Your task to perform on an android device: check out phone information Image 0: 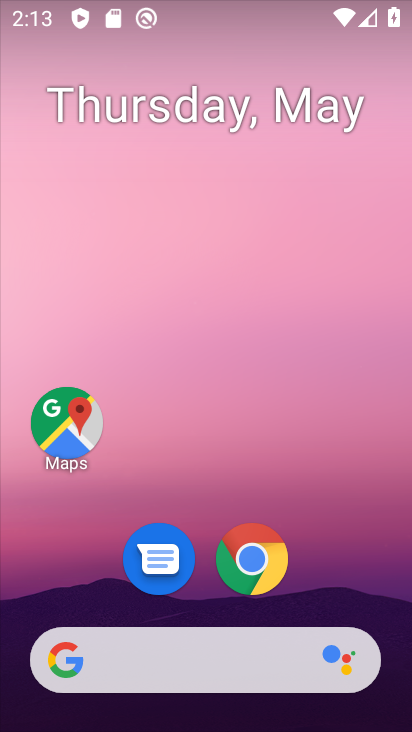
Step 0: drag from (200, 608) to (209, 188)
Your task to perform on an android device: check out phone information Image 1: 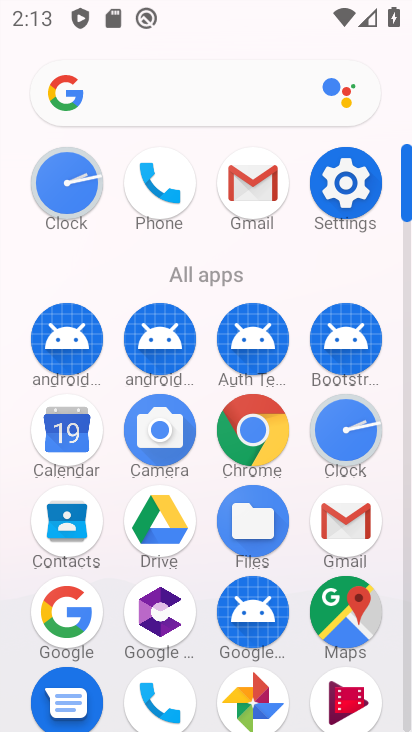
Step 1: click (340, 186)
Your task to perform on an android device: check out phone information Image 2: 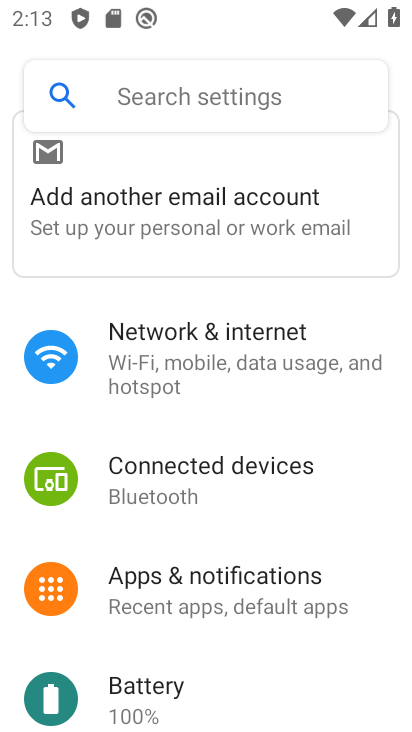
Step 2: drag from (199, 644) to (199, 417)
Your task to perform on an android device: check out phone information Image 3: 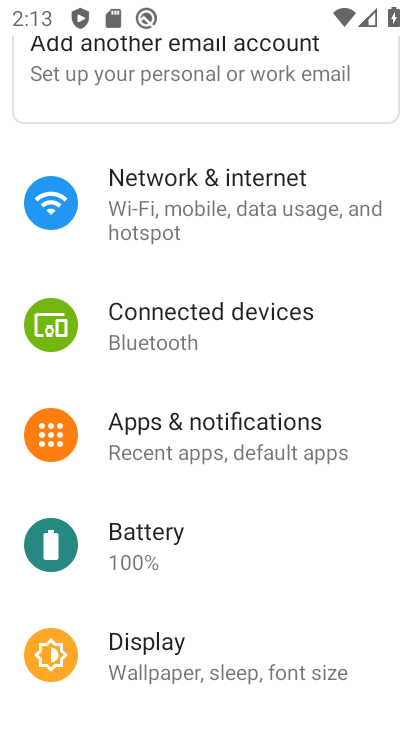
Step 3: drag from (215, 629) to (214, 362)
Your task to perform on an android device: check out phone information Image 4: 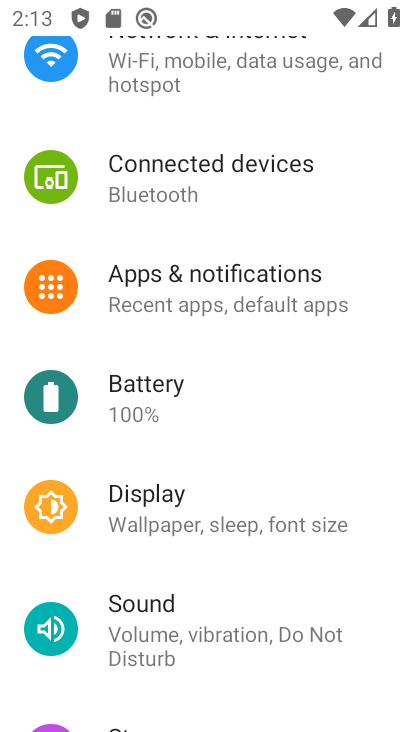
Step 4: drag from (214, 628) to (234, 311)
Your task to perform on an android device: check out phone information Image 5: 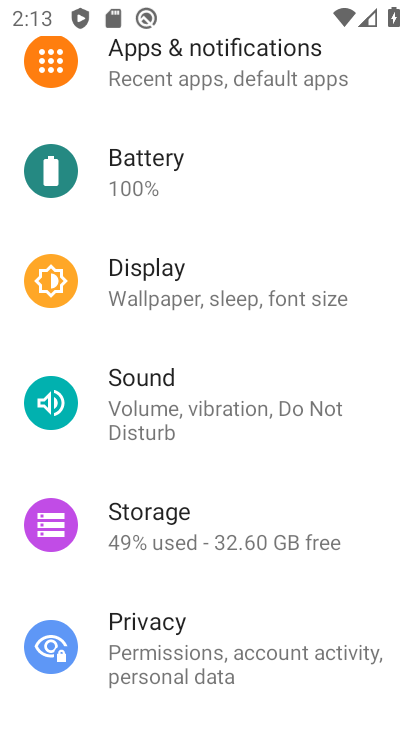
Step 5: drag from (234, 612) to (236, 355)
Your task to perform on an android device: check out phone information Image 6: 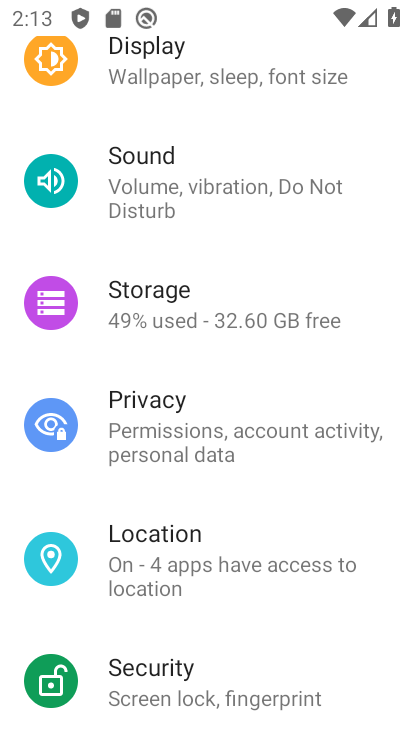
Step 6: drag from (214, 699) to (239, 341)
Your task to perform on an android device: check out phone information Image 7: 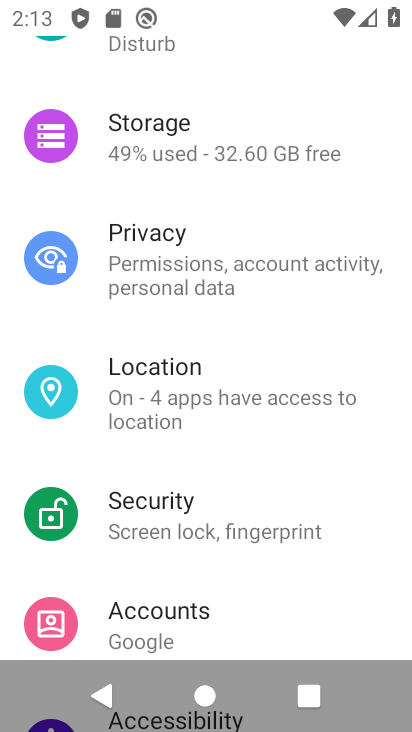
Step 7: drag from (240, 552) to (263, 286)
Your task to perform on an android device: check out phone information Image 8: 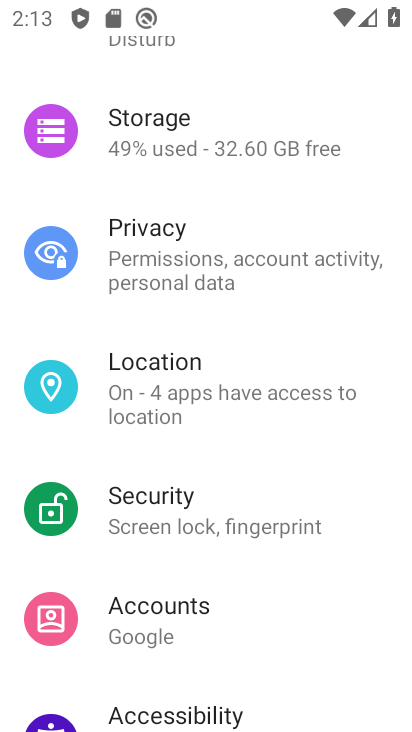
Step 8: drag from (263, 570) to (289, 267)
Your task to perform on an android device: check out phone information Image 9: 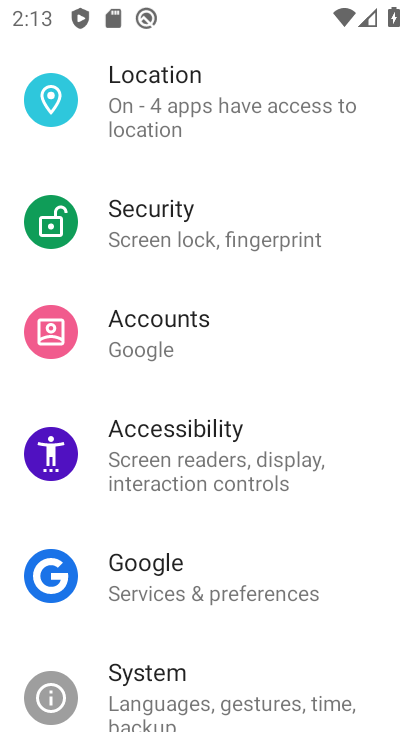
Step 9: drag from (252, 579) to (270, 246)
Your task to perform on an android device: check out phone information Image 10: 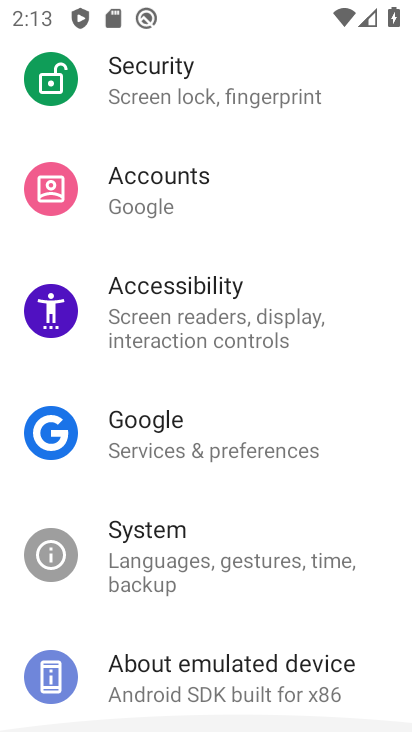
Step 10: drag from (229, 568) to (226, 256)
Your task to perform on an android device: check out phone information Image 11: 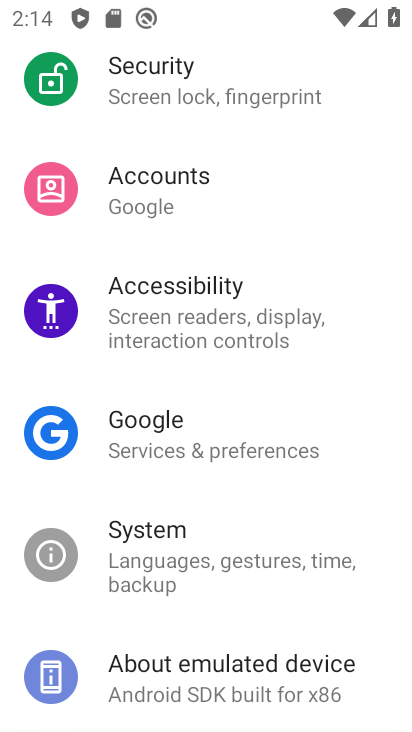
Step 11: drag from (217, 468) to (229, 302)
Your task to perform on an android device: check out phone information Image 12: 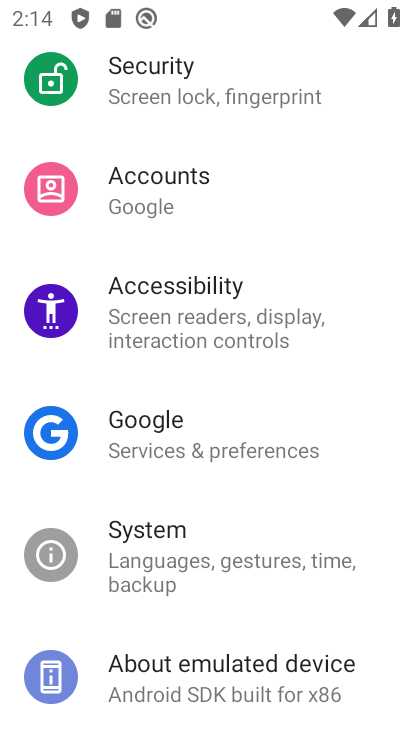
Step 12: click (201, 660)
Your task to perform on an android device: check out phone information Image 13: 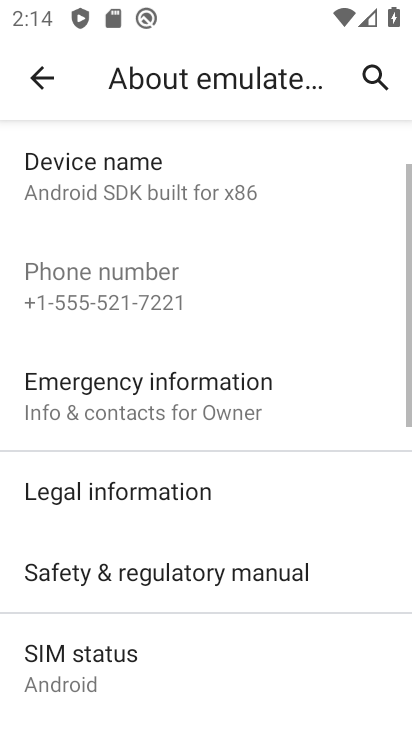
Step 13: task complete